Your task to perform on an android device: Show me productivity apps on the Play Store Image 0: 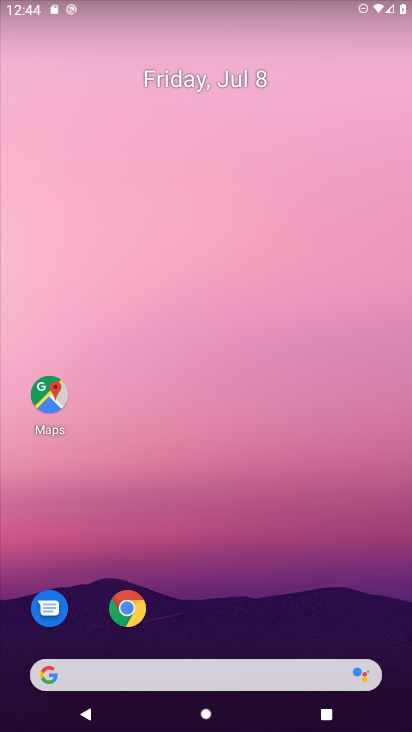
Step 0: drag from (263, 618) to (258, 60)
Your task to perform on an android device: Show me productivity apps on the Play Store Image 1: 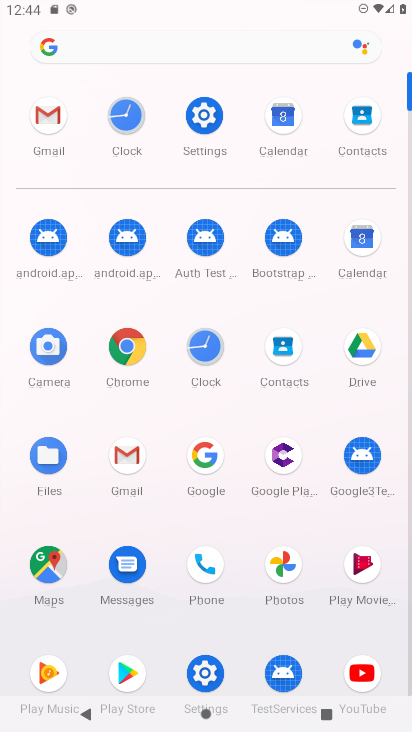
Step 1: click (222, 112)
Your task to perform on an android device: Show me productivity apps on the Play Store Image 2: 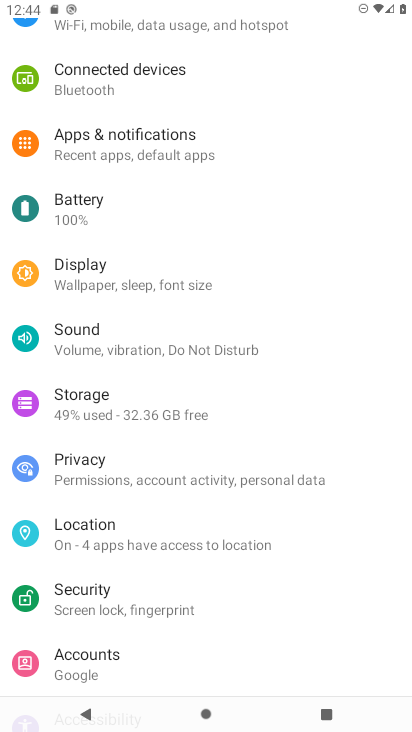
Step 2: press home button
Your task to perform on an android device: Show me productivity apps on the Play Store Image 3: 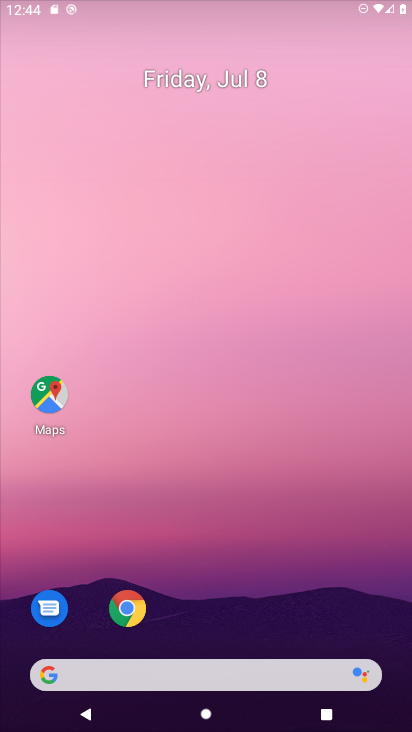
Step 3: drag from (217, 608) to (208, 177)
Your task to perform on an android device: Show me productivity apps on the Play Store Image 4: 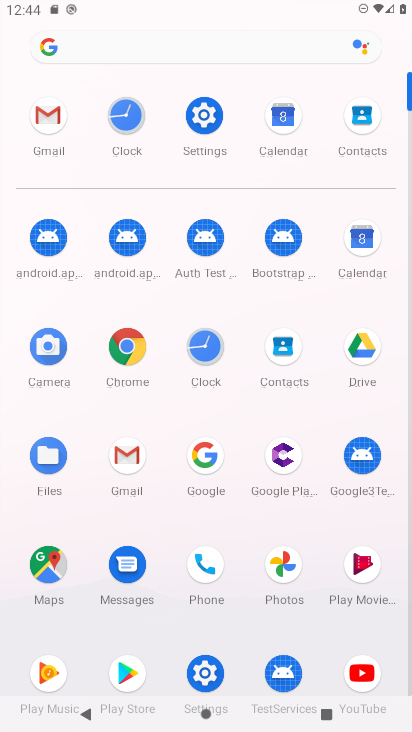
Step 4: click (208, 146)
Your task to perform on an android device: Show me productivity apps on the Play Store Image 5: 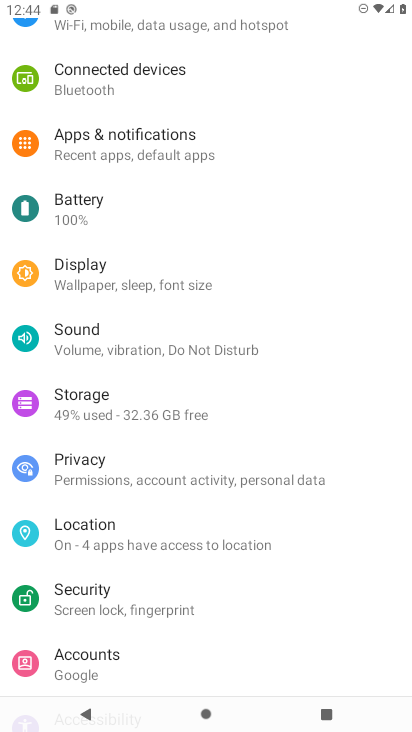
Step 5: press home button
Your task to perform on an android device: Show me productivity apps on the Play Store Image 6: 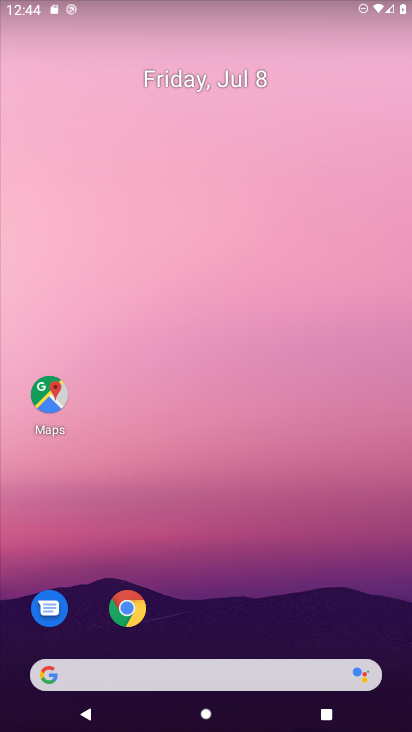
Step 6: drag from (229, 572) to (234, 127)
Your task to perform on an android device: Show me productivity apps on the Play Store Image 7: 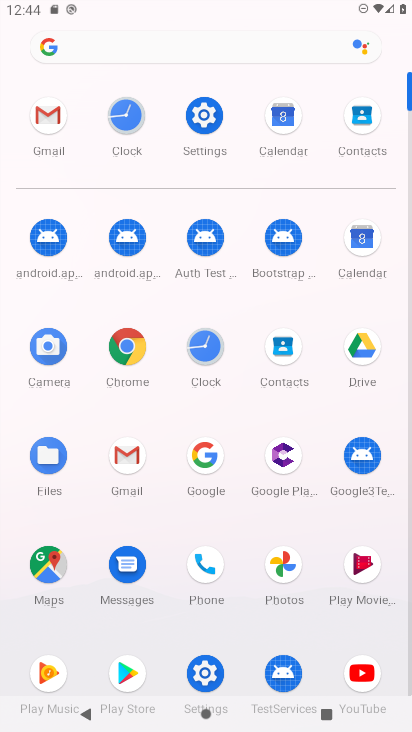
Step 7: click (138, 688)
Your task to perform on an android device: Show me productivity apps on the Play Store Image 8: 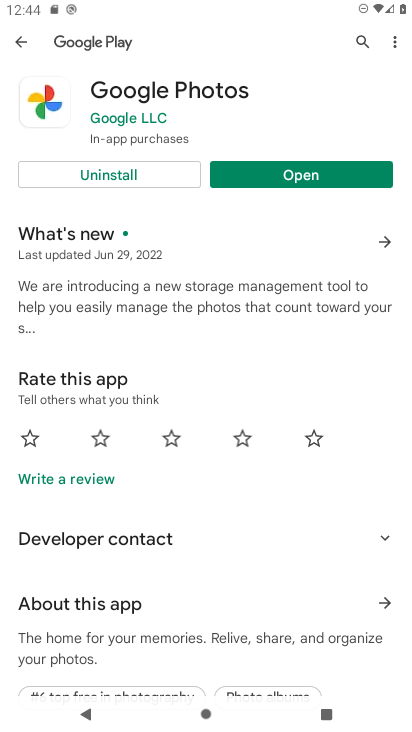
Step 8: click (31, 58)
Your task to perform on an android device: Show me productivity apps on the Play Store Image 9: 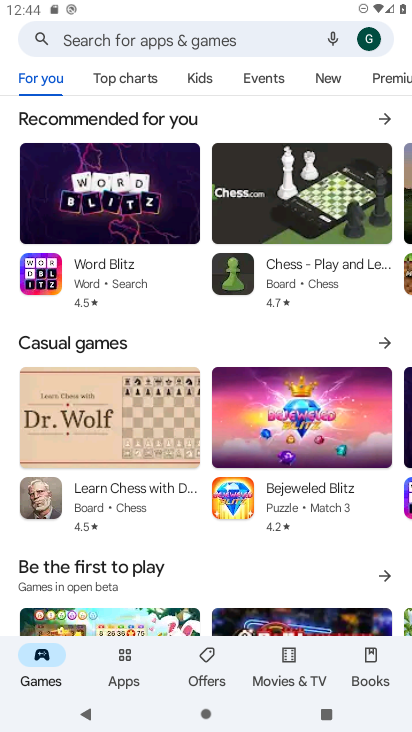
Step 9: click (121, 680)
Your task to perform on an android device: Show me productivity apps on the Play Store Image 10: 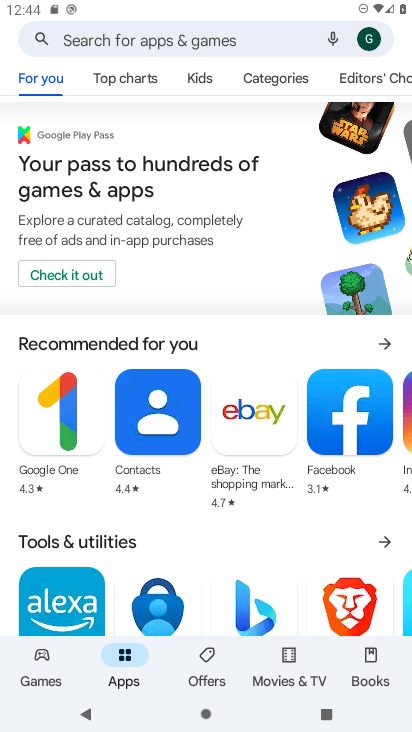
Step 10: click (136, 77)
Your task to perform on an android device: Show me productivity apps on the Play Store Image 11: 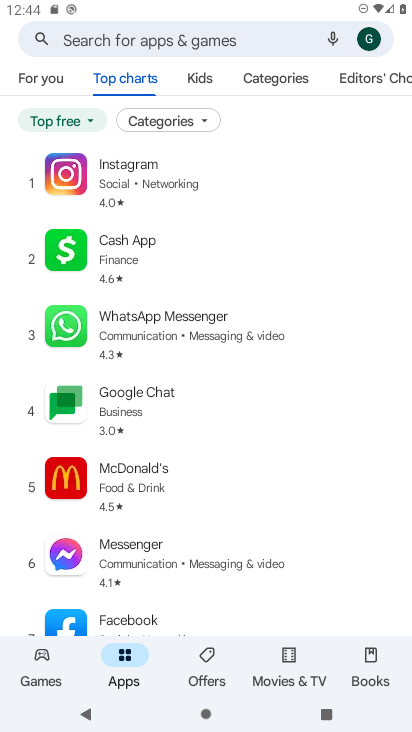
Step 11: click (203, 117)
Your task to perform on an android device: Show me productivity apps on the Play Store Image 12: 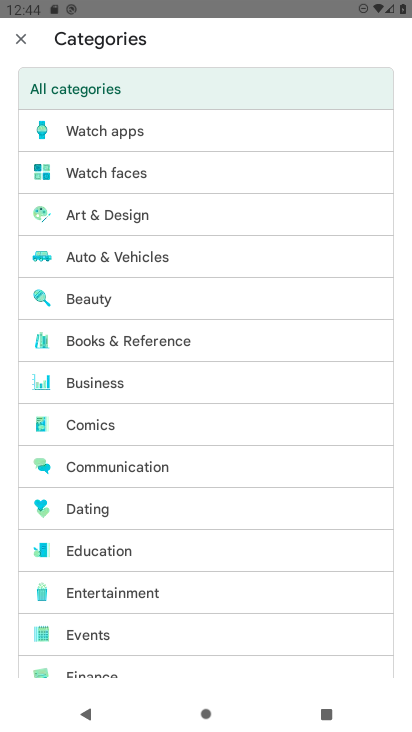
Step 12: drag from (156, 627) to (176, 244)
Your task to perform on an android device: Show me productivity apps on the Play Store Image 13: 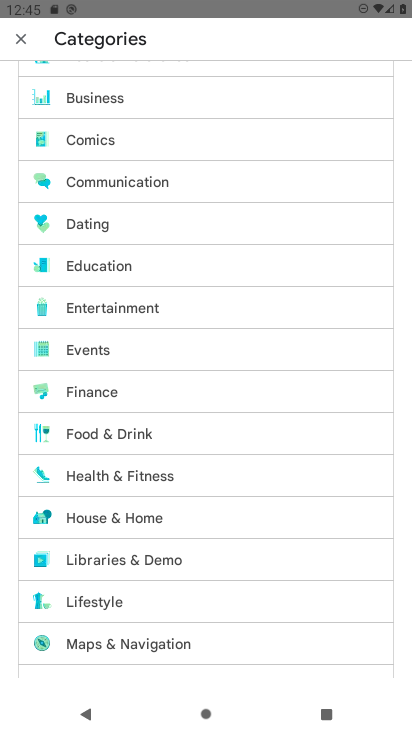
Step 13: drag from (123, 610) to (168, 332)
Your task to perform on an android device: Show me productivity apps on the Play Store Image 14: 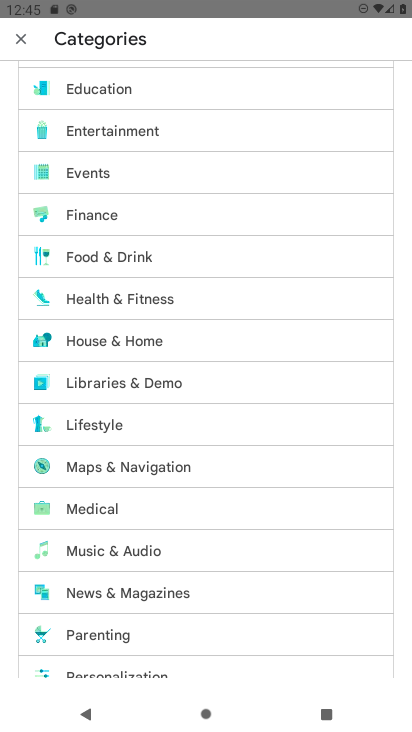
Step 14: drag from (141, 623) to (204, 278)
Your task to perform on an android device: Show me productivity apps on the Play Store Image 15: 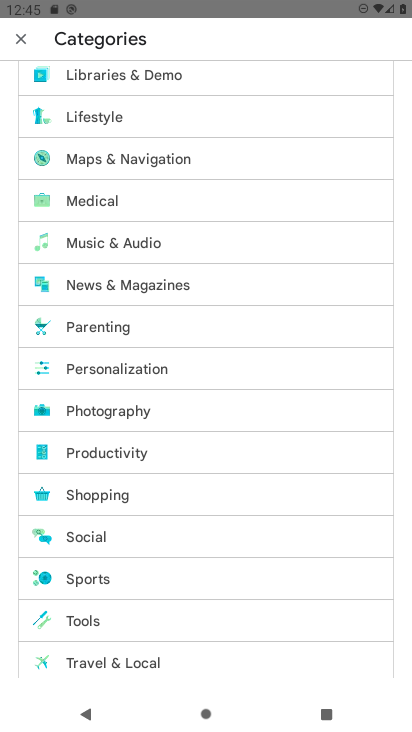
Step 15: click (174, 457)
Your task to perform on an android device: Show me productivity apps on the Play Store Image 16: 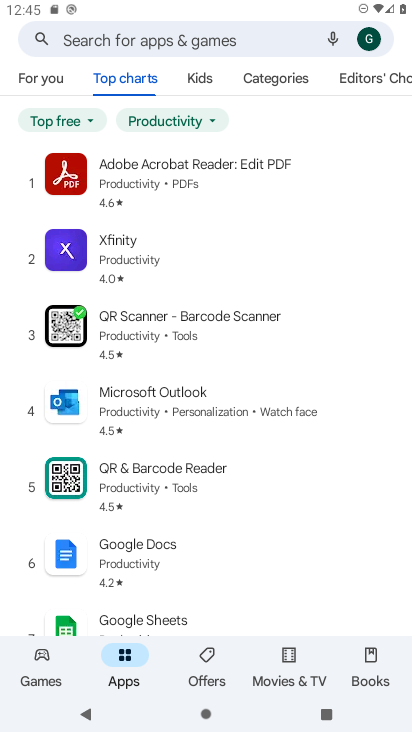
Step 16: task complete